Your task to perform on an android device: open app "Microsoft Excel" (install if not already installed), go to login, and select forgot password Image 0: 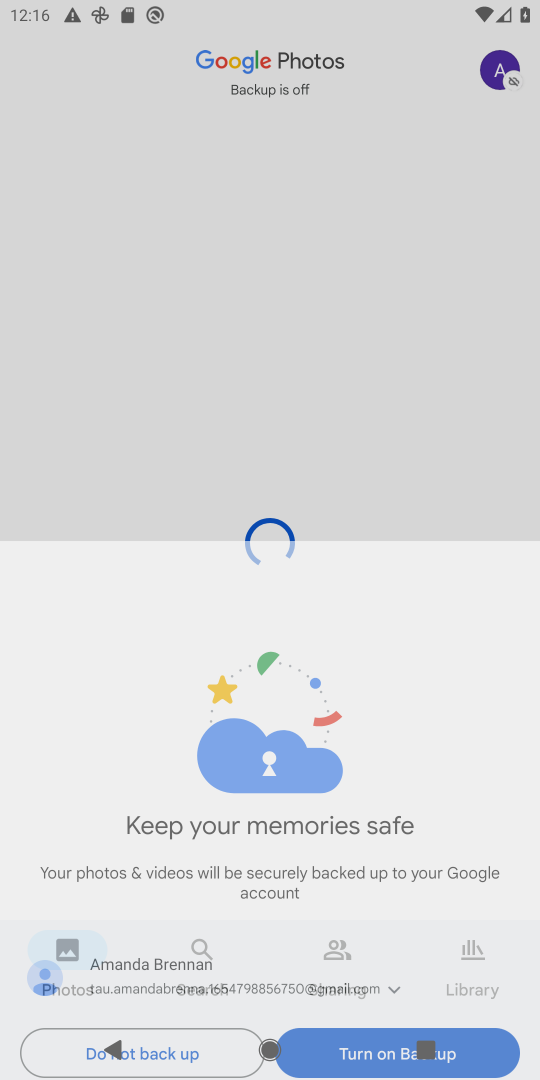
Step 0: press home button
Your task to perform on an android device: open app "Microsoft Excel" (install if not already installed), go to login, and select forgot password Image 1: 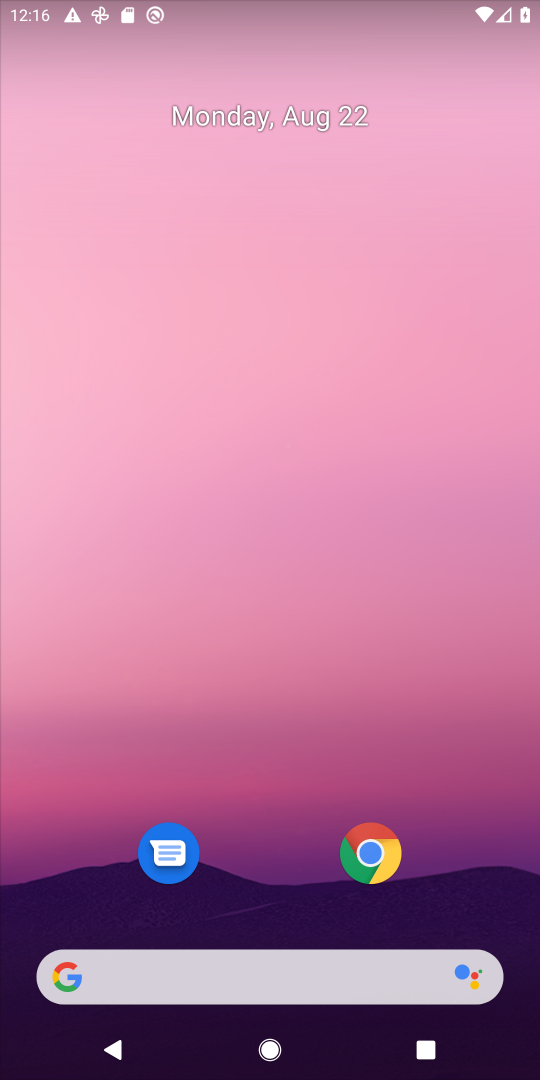
Step 1: drag from (283, 944) to (271, 539)
Your task to perform on an android device: open app "Microsoft Excel" (install if not already installed), go to login, and select forgot password Image 2: 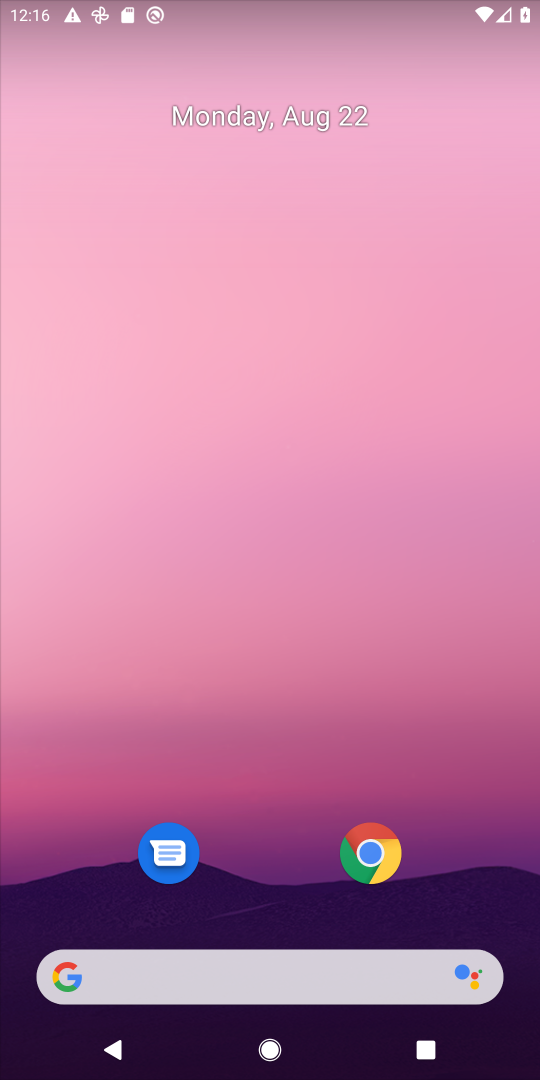
Step 2: drag from (213, 606) to (203, 336)
Your task to perform on an android device: open app "Microsoft Excel" (install if not already installed), go to login, and select forgot password Image 3: 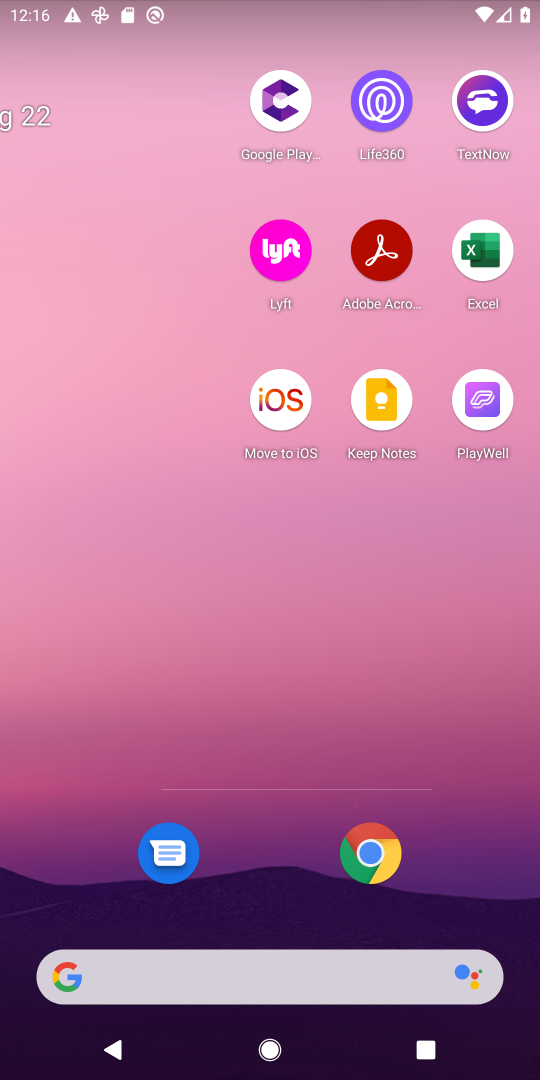
Step 3: drag from (312, 895) to (298, 184)
Your task to perform on an android device: open app "Microsoft Excel" (install if not already installed), go to login, and select forgot password Image 4: 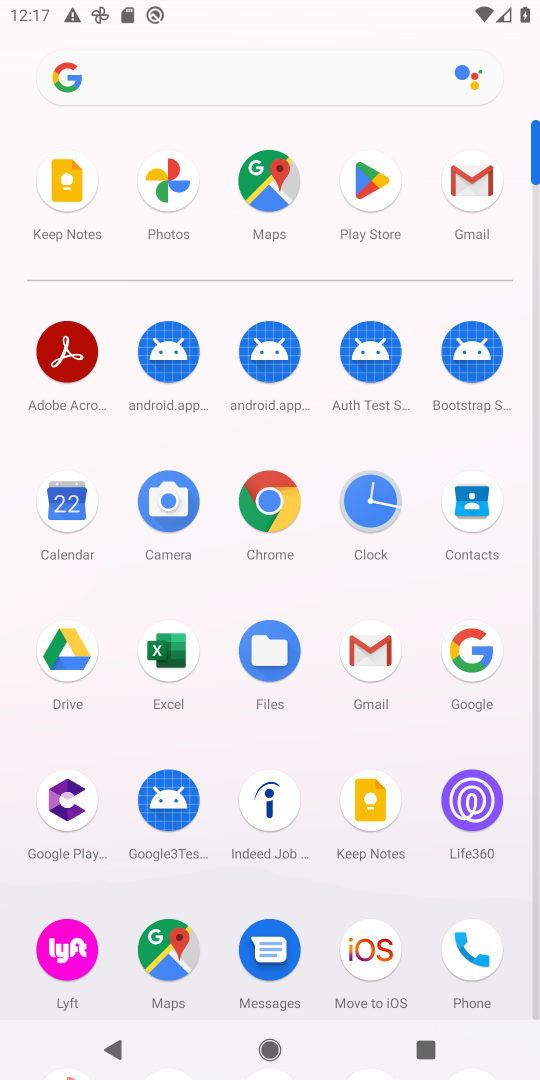
Step 4: click (375, 191)
Your task to perform on an android device: open app "Microsoft Excel" (install if not already installed), go to login, and select forgot password Image 5: 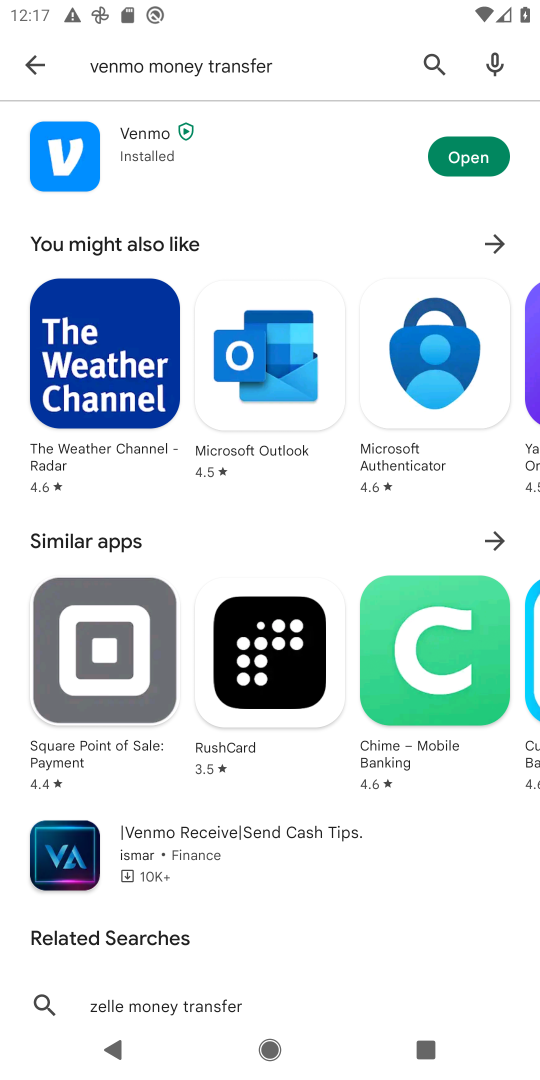
Step 5: click (29, 46)
Your task to perform on an android device: open app "Microsoft Excel" (install if not already installed), go to login, and select forgot password Image 6: 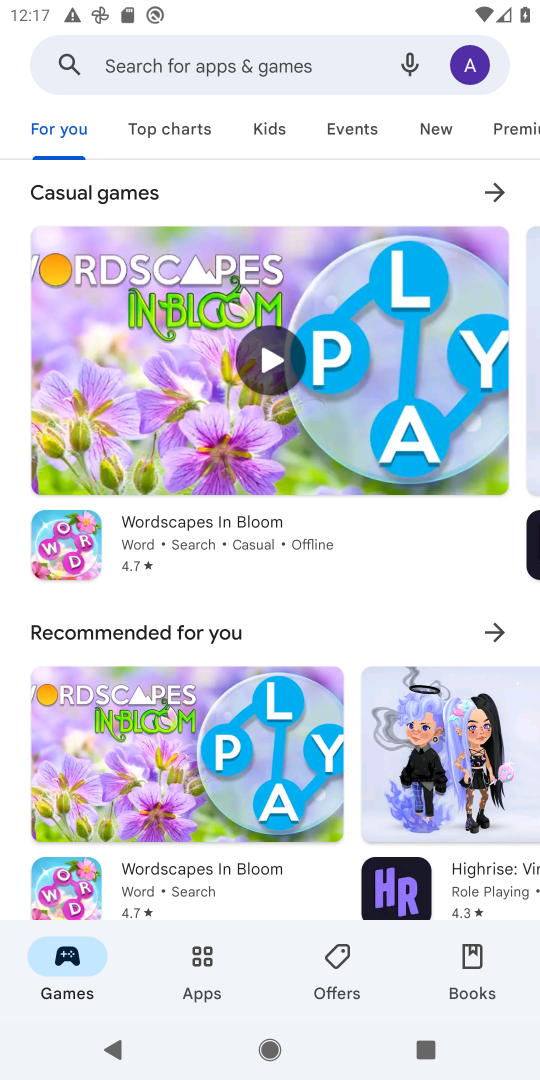
Step 6: click (143, 55)
Your task to perform on an android device: open app "Microsoft Excel" (install if not already installed), go to login, and select forgot password Image 7: 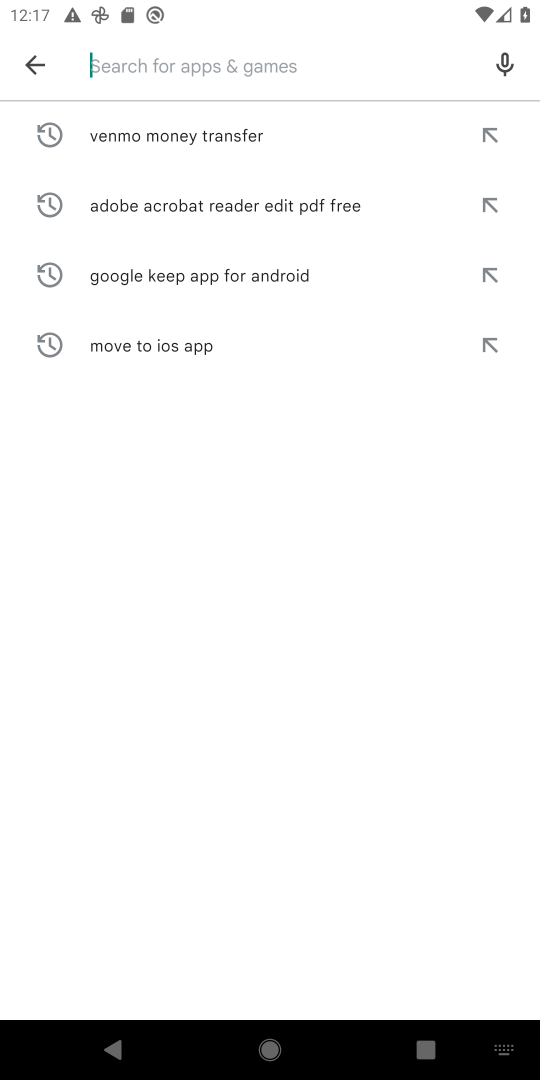
Step 7: type "microsoft excel "
Your task to perform on an android device: open app "Microsoft Excel" (install if not already installed), go to login, and select forgot password Image 8: 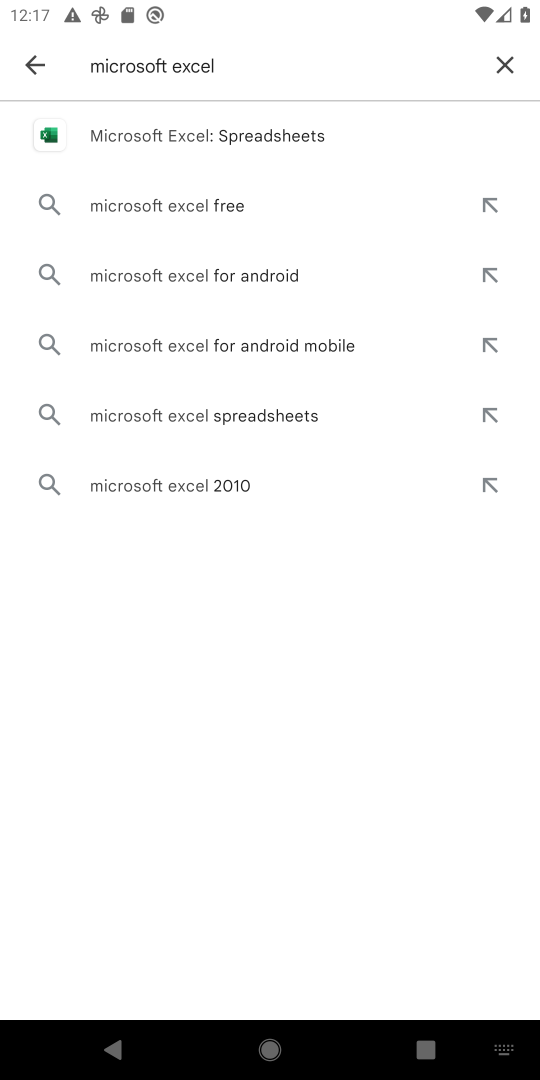
Step 8: click (152, 146)
Your task to perform on an android device: open app "Microsoft Excel" (install if not already installed), go to login, and select forgot password Image 9: 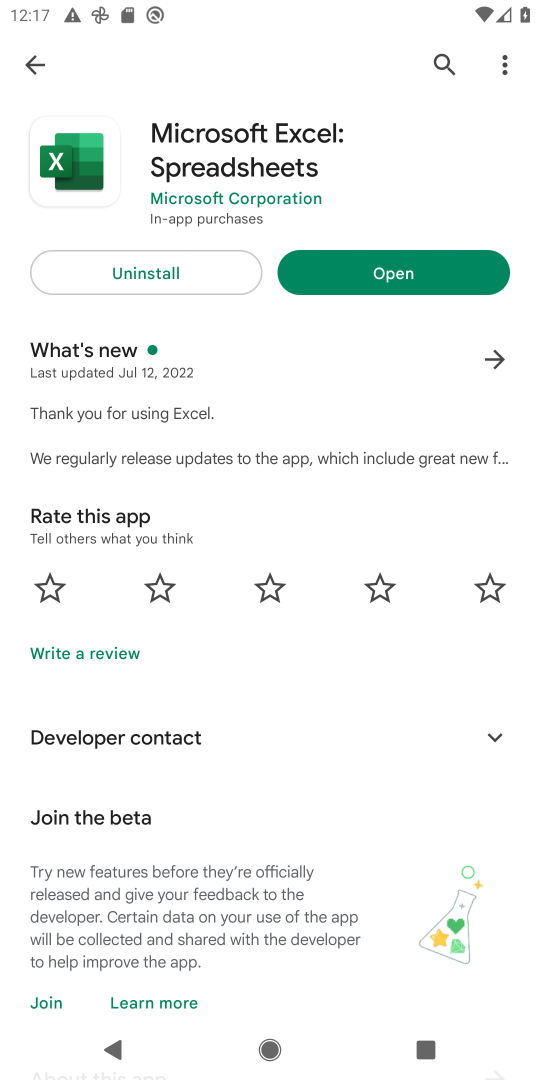
Step 9: click (353, 282)
Your task to perform on an android device: open app "Microsoft Excel" (install if not already installed), go to login, and select forgot password Image 10: 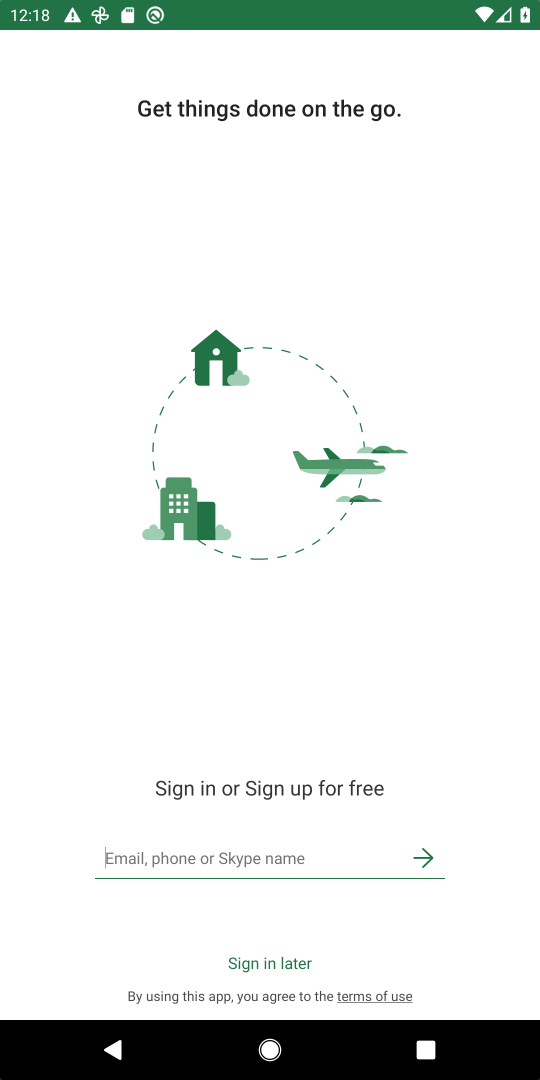
Step 10: task complete